Your task to perform on an android device: toggle pop-ups in chrome Image 0: 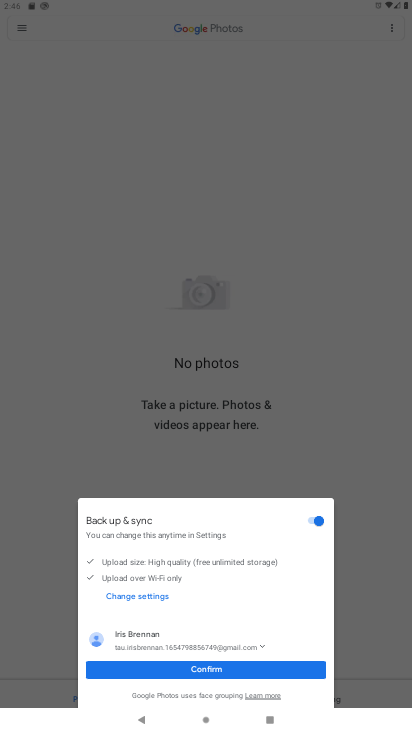
Step 0: press home button
Your task to perform on an android device: toggle pop-ups in chrome Image 1: 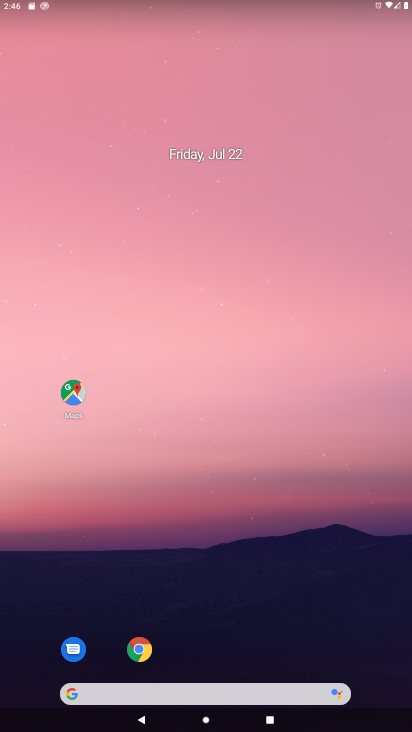
Step 1: click (136, 651)
Your task to perform on an android device: toggle pop-ups in chrome Image 2: 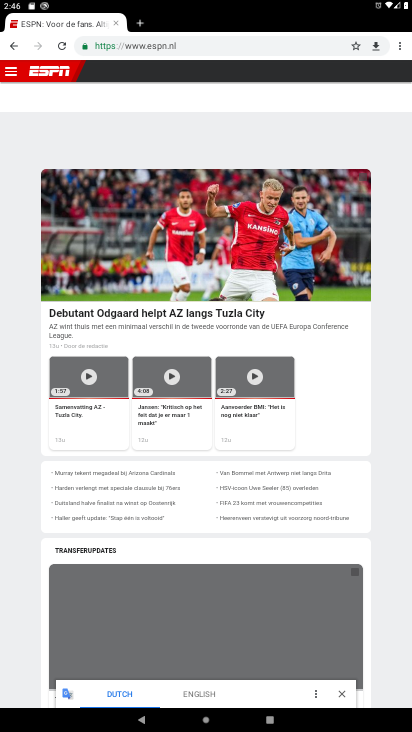
Step 2: click (400, 47)
Your task to perform on an android device: toggle pop-ups in chrome Image 3: 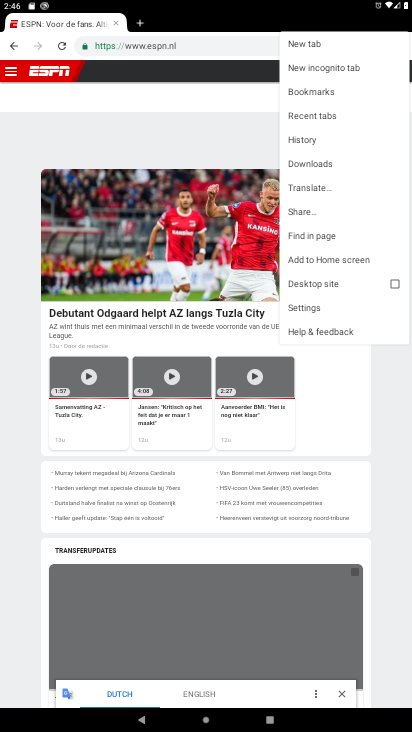
Step 3: click (303, 306)
Your task to perform on an android device: toggle pop-ups in chrome Image 4: 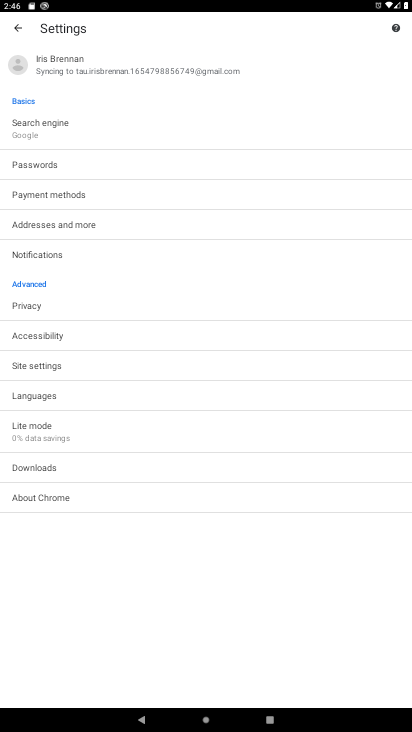
Step 4: click (32, 365)
Your task to perform on an android device: toggle pop-ups in chrome Image 5: 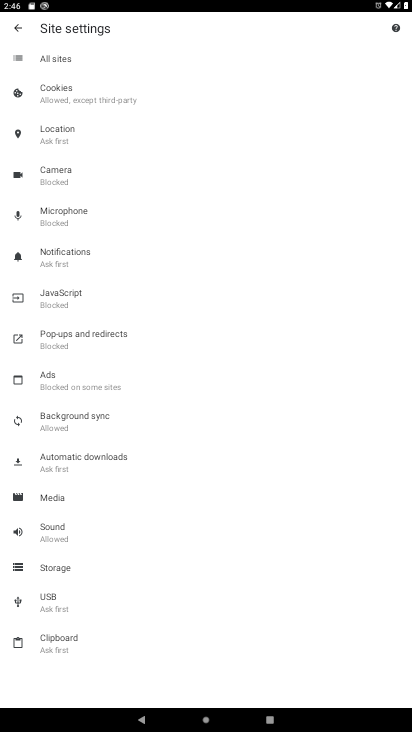
Step 5: click (60, 332)
Your task to perform on an android device: toggle pop-ups in chrome Image 6: 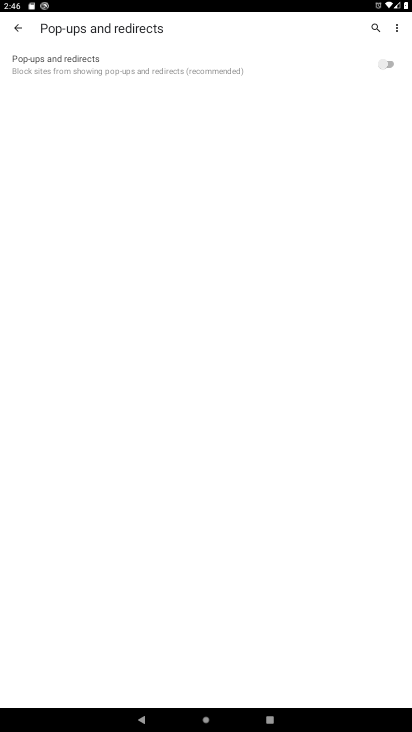
Step 6: click (386, 60)
Your task to perform on an android device: toggle pop-ups in chrome Image 7: 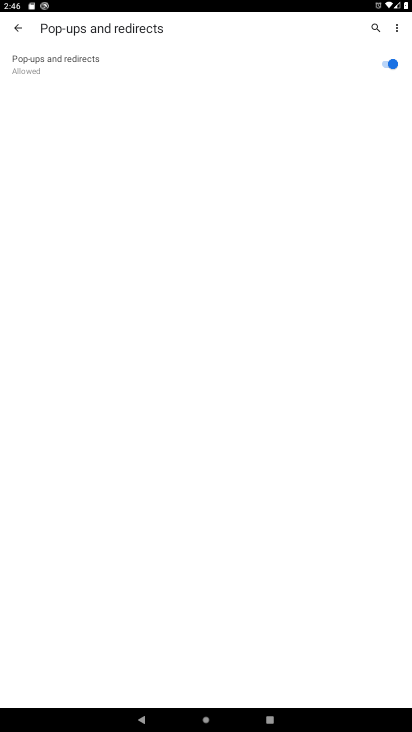
Step 7: task complete